Your task to perform on an android device: change the clock display to analog Image 0: 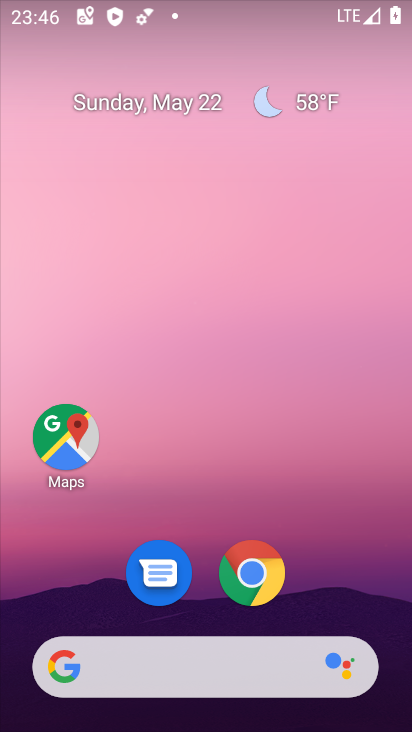
Step 0: drag from (205, 607) to (237, 2)
Your task to perform on an android device: change the clock display to analog Image 1: 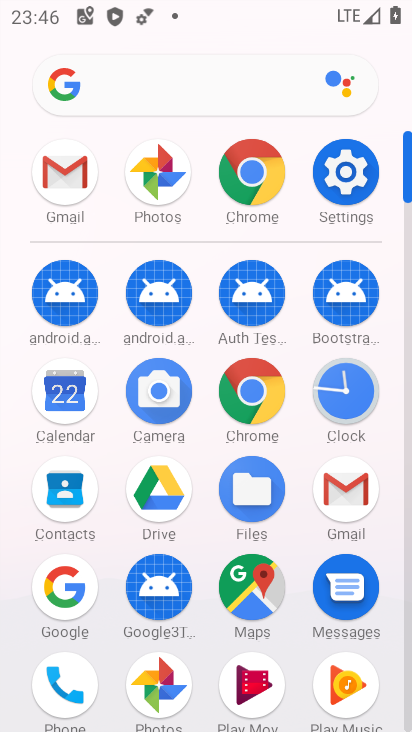
Step 1: click (350, 392)
Your task to perform on an android device: change the clock display to analog Image 2: 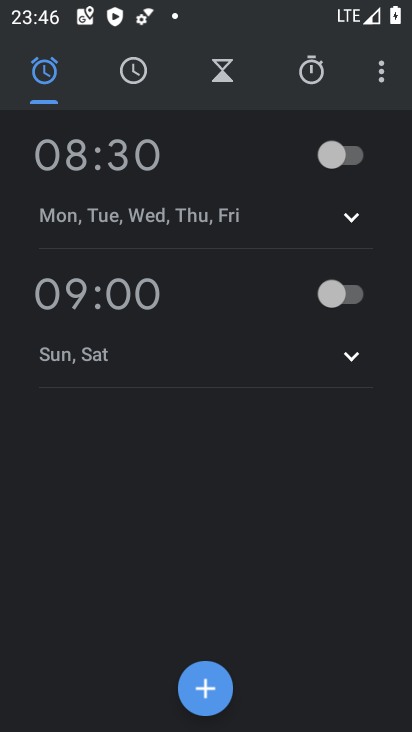
Step 2: click (383, 83)
Your task to perform on an android device: change the clock display to analog Image 3: 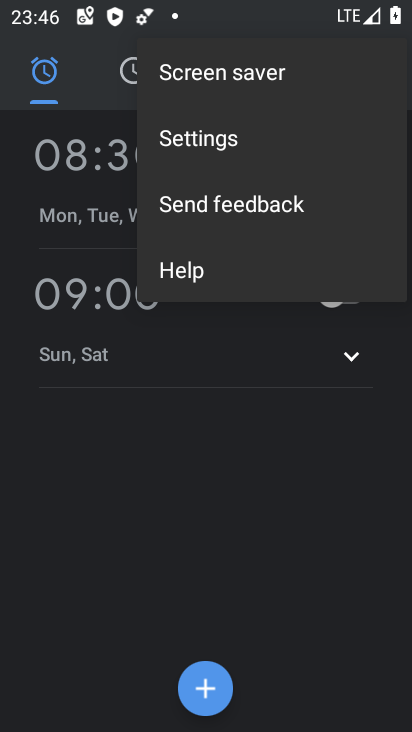
Step 3: click (195, 138)
Your task to perform on an android device: change the clock display to analog Image 4: 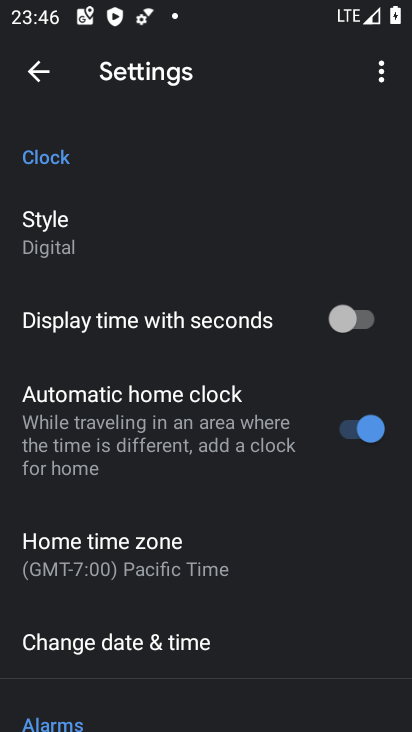
Step 4: click (100, 234)
Your task to perform on an android device: change the clock display to analog Image 5: 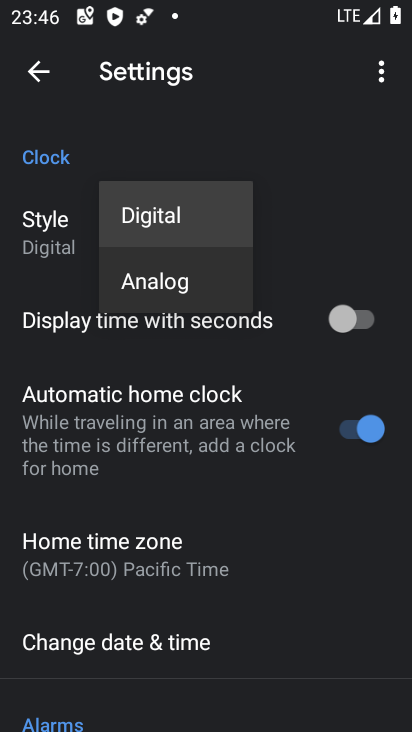
Step 5: click (157, 287)
Your task to perform on an android device: change the clock display to analog Image 6: 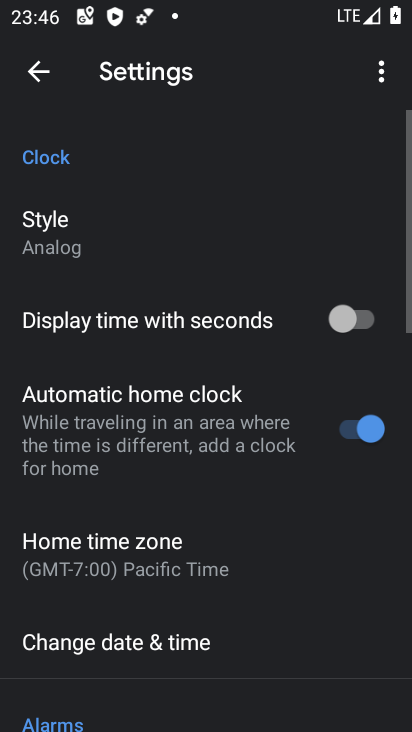
Step 6: task complete